Your task to perform on an android device: toggle translation in the chrome app Image 0: 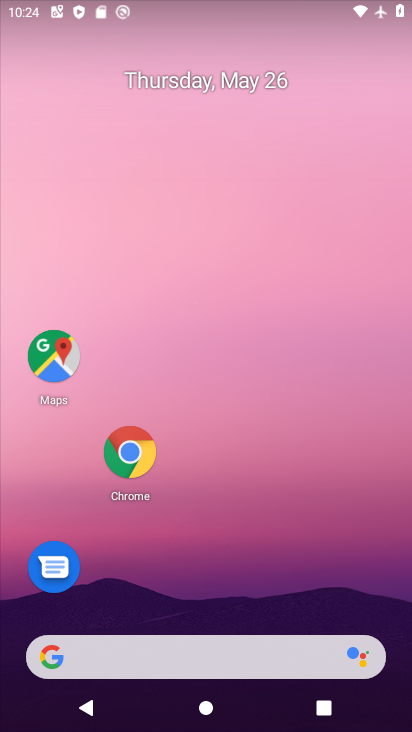
Step 0: press home button
Your task to perform on an android device: toggle translation in the chrome app Image 1: 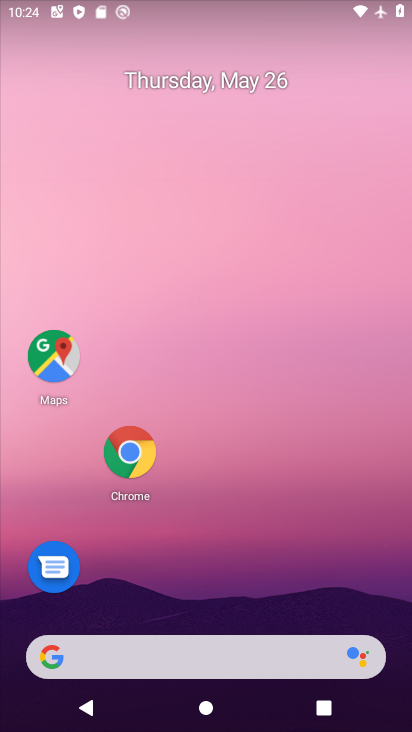
Step 1: click (134, 456)
Your task to perform on an android device: toggle translation in the chrome app Image 2: 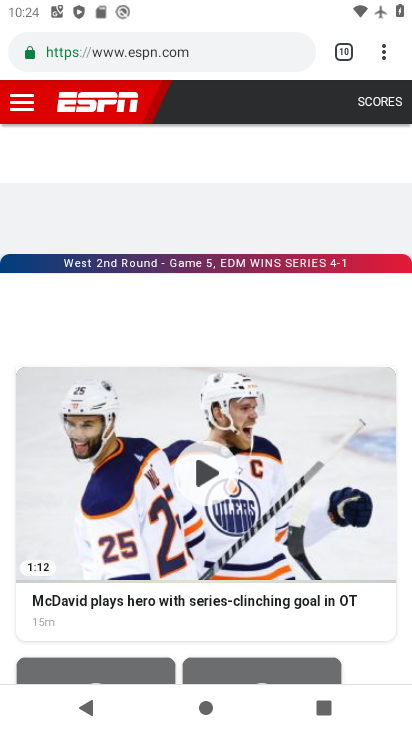
Step 2: drag from (381, 51) to (239, 610)
Your task to perform on an android device: toggle translation in the chrome app Image 3: 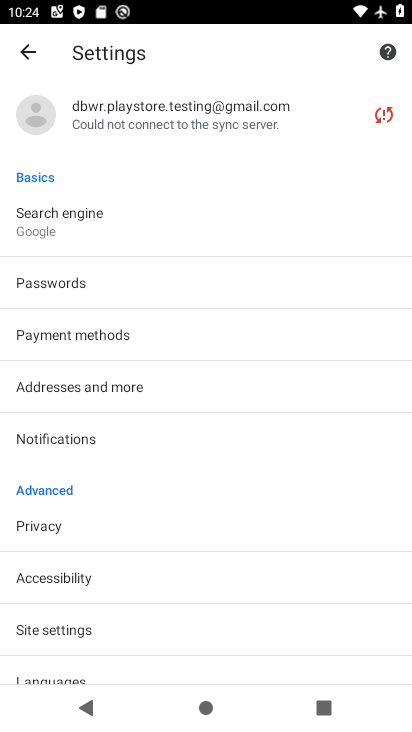
Step 3: drag from (178, 620) to (325, 237)
Your task to perform on an android device: toggle translation in the chrome app Image 4: 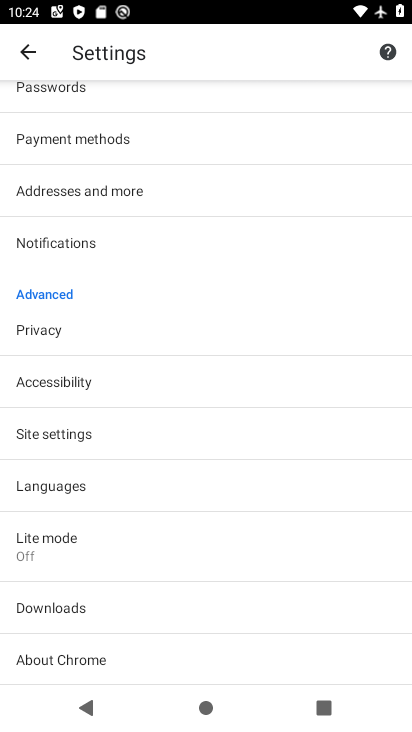
Step 4: click (69, 486)
Your task to perform on an android device: toggle translation in the chrome app Image 5: 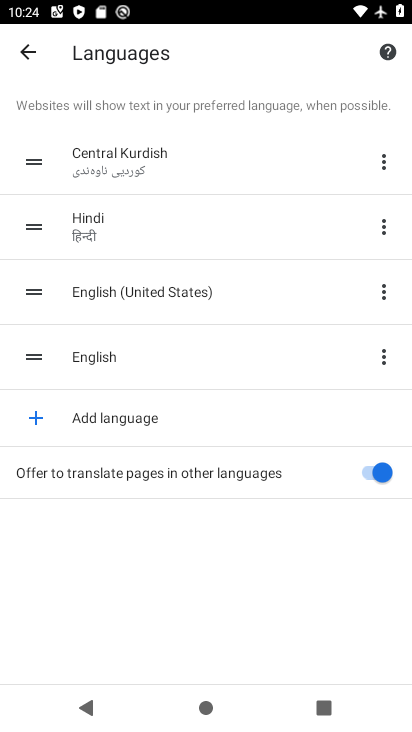
Step 5: click (366, 473)
Your task to perform on an android device: toggle translation in the chrome app Image 6: 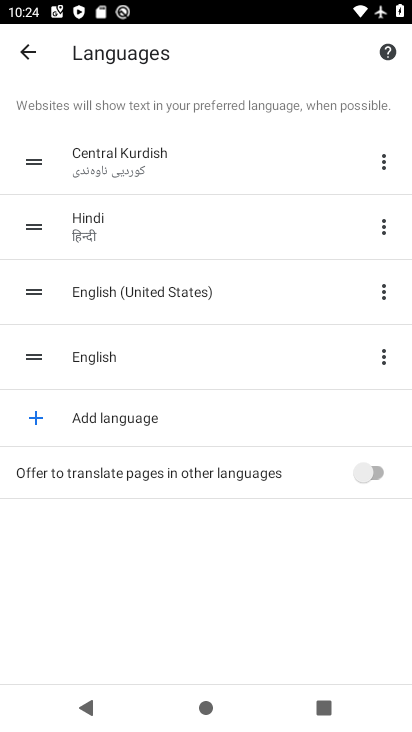
Step 6: task complete